Your task to perform on an android device: turn notification dots off Image 0: 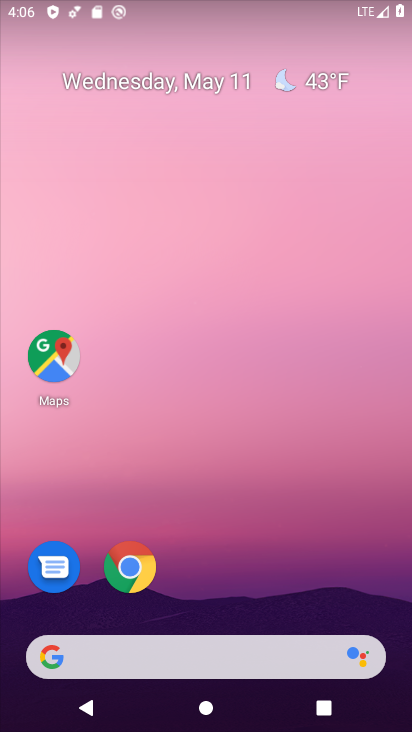
Step 0: drag from (231, 606) to (297, 119)
Your task to perform on an android device: turn notification dots off Image 1: 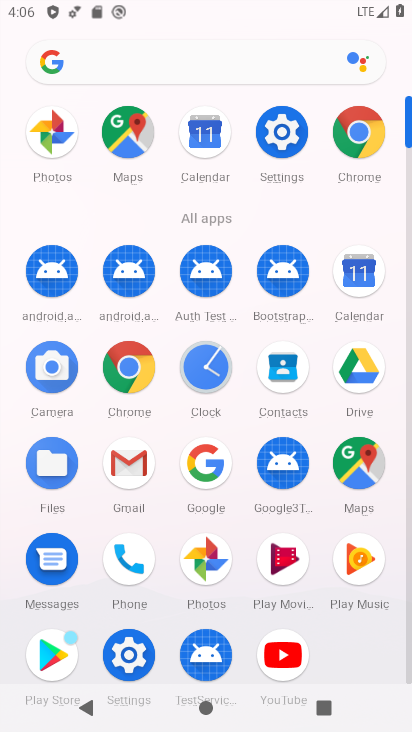
Step 1: click (301, 131)
Your task to perform on an android device: turn notification dots off Image 2: 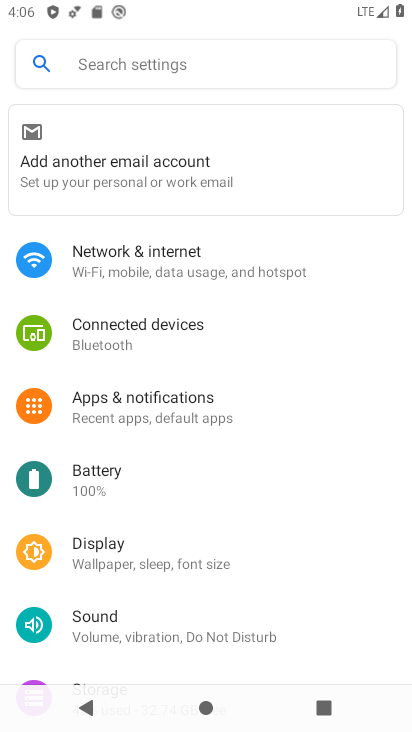
Step 2: click (187, 411)
Your task to perform on an android device: turn notification dots off Image 3: 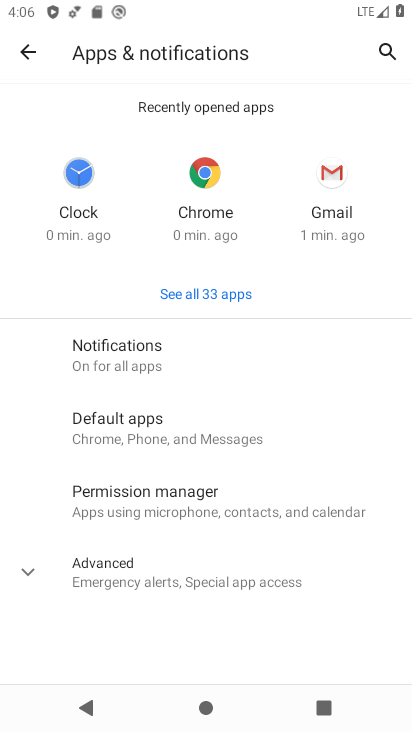
Step 3: click (146, 368)
Your task to perform on an android device: turn notification dots off Image 4: 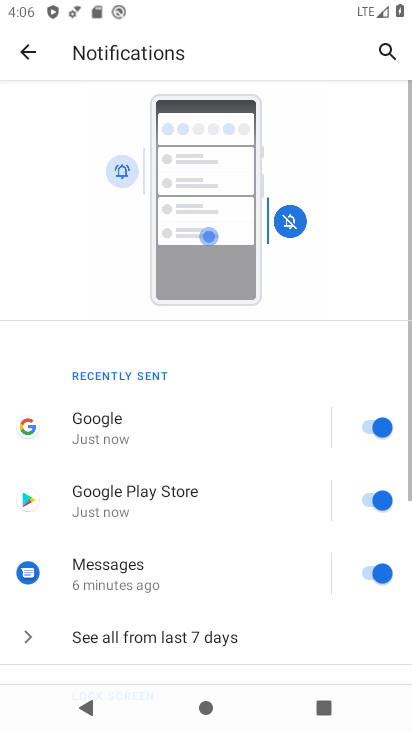
Step 4: drag from (191, 616) to (215, 105)
Your task to perform on an android device: turn notification dots off Image 5: 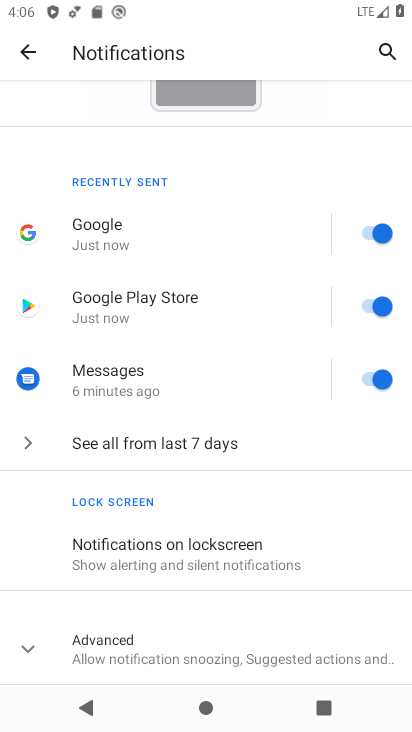
Step 5: click (138, 638)
Your task to perform on an android device: turn notification dots off Image 6: 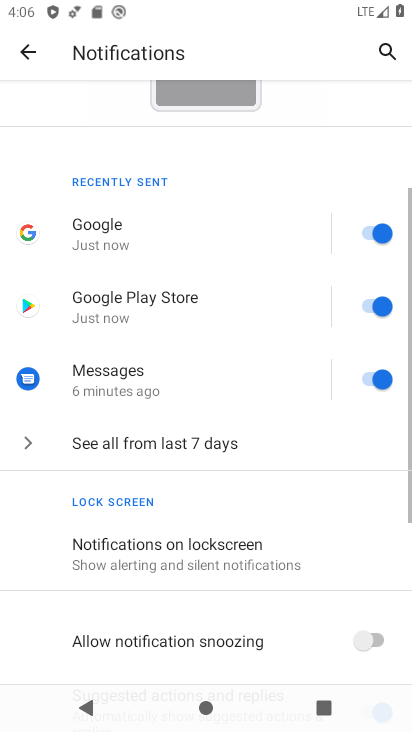
Step 6: drag from (160, 624) to (229, 117)
Your task to perform on an android device: turn notification dots off Image 7: 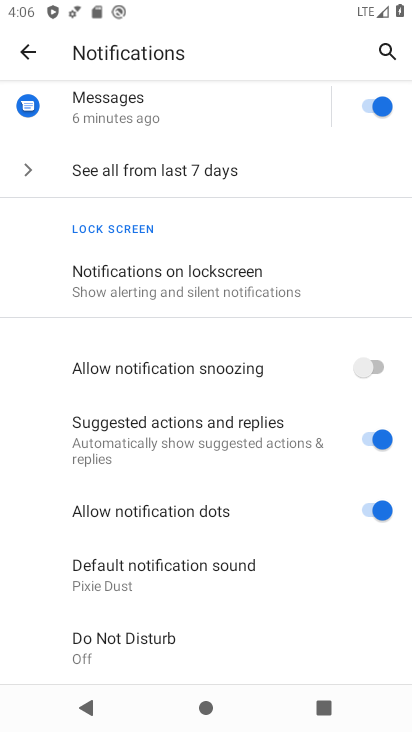
Step 7: drag from (169, 651) to (237, 178)
Your task to perform on an android device: turn notification dots off Image 8: 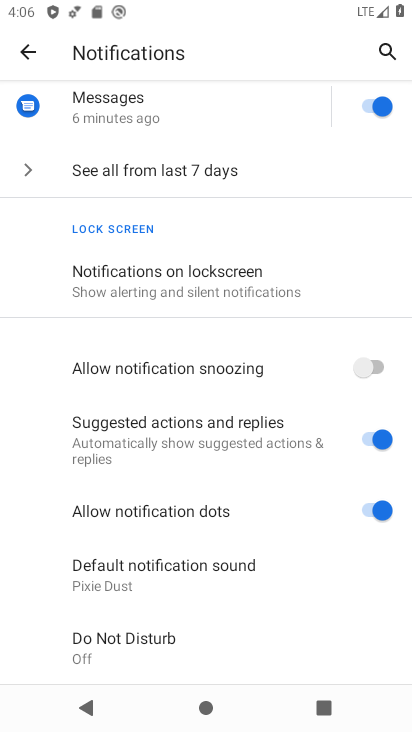
Step 8: click (357, 518)
Your task to perform on an android device: turn notification dots off Image 9: 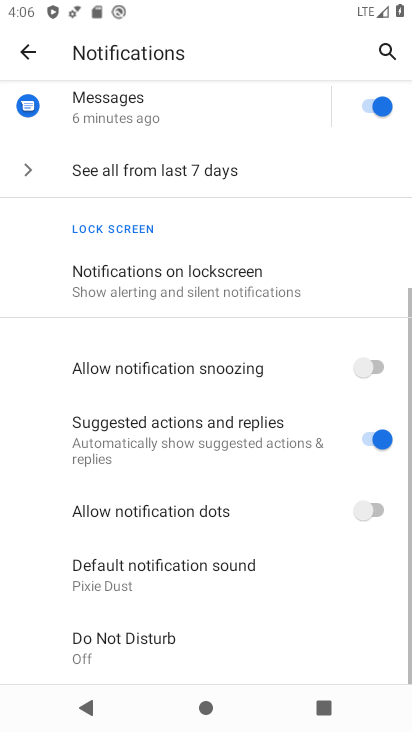
Step 9: task complete